Your task to perform on an android device: Open the stopwatch Image 0: 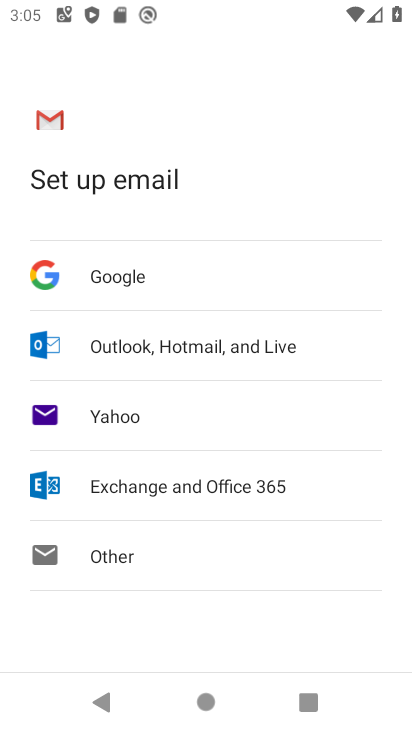
Step 0: press home button
Your task to perform on an android device: Open the stopwatch Image 1: 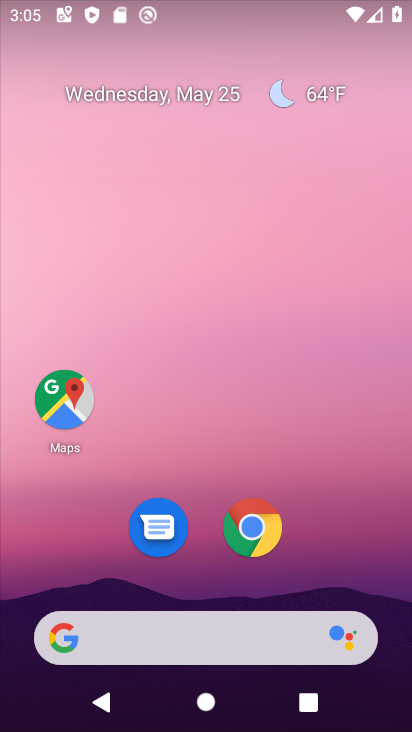
Step 1: drag from (205, 548) to (241, 94)
Your task to perform on an android device: Open the stopwatch Image 2: 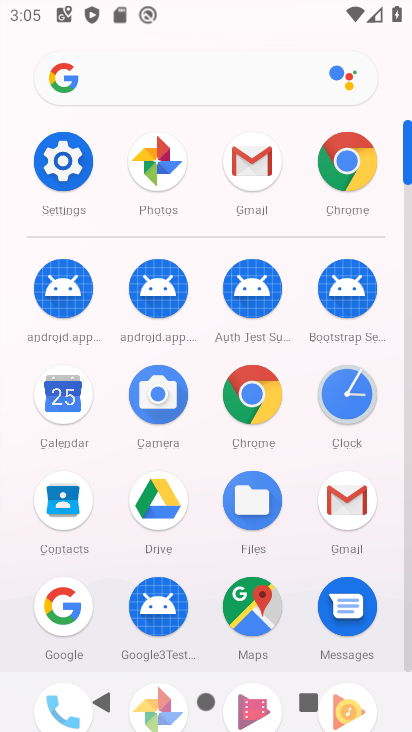
Step 2: click (340, 395)
Your task to perform on an android device: Open the stopwatch Image 3: 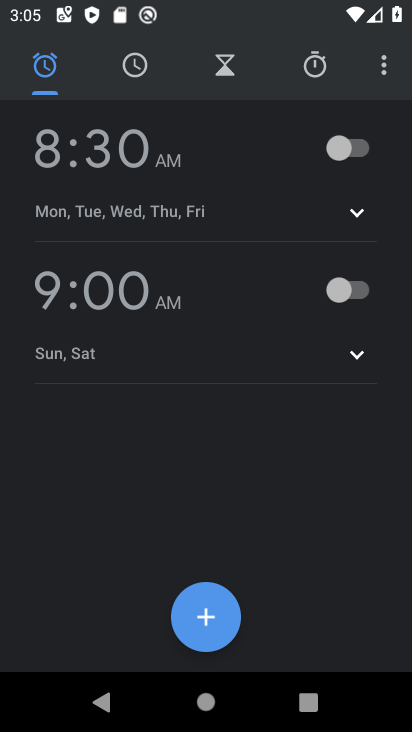
Step 3: click (316, 62)
Your task to perform on an android device: Open the stopwatch Image 4: 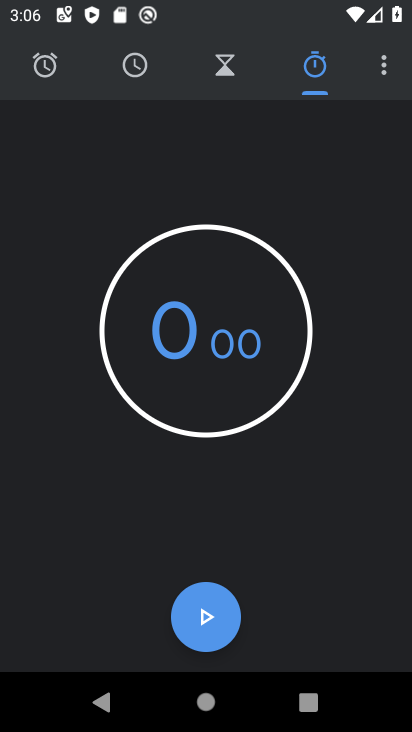
Step 4: task complete